Your task to perform on an android device: set an alarm Image 0: 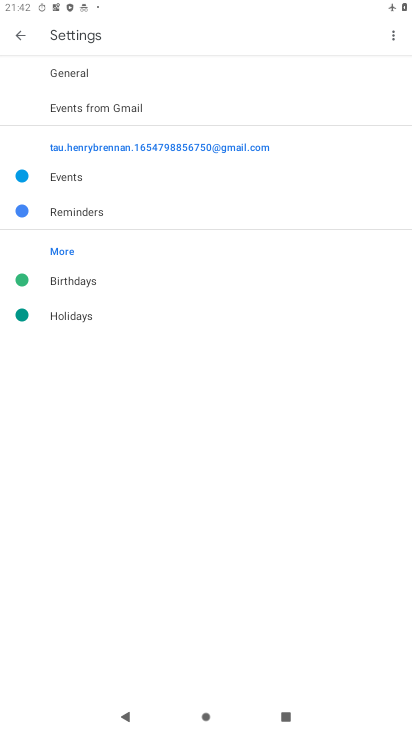
Step 0: click (15, 40)
Your task to perform on an android device: set an alarm Image 1: 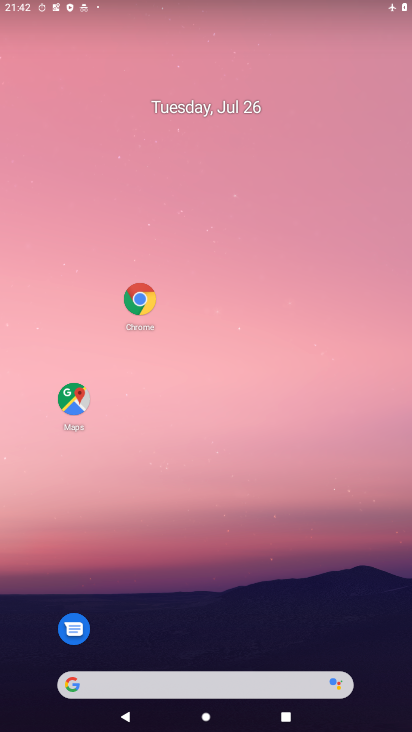
Step 1: drag from (226, 651) to (127, 91)
Your task to perform on an android device: set an alarm Image 2: 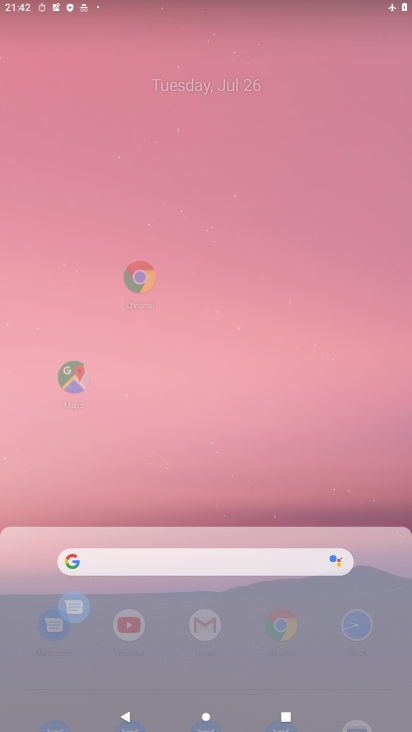
Step 2: drag from (219, 565) to (195, 97)
Your task to perform on an android device: set an alarm Image 3: 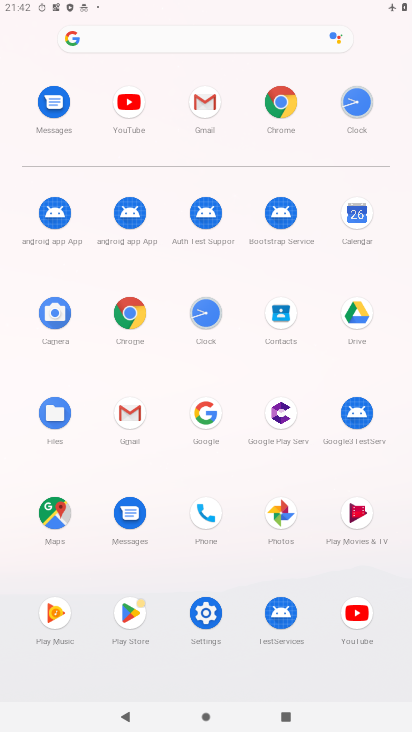
Step 3: drag from (271, 536) to (213, 181)
Your task to perform on an android device: set an alarm Image 4: 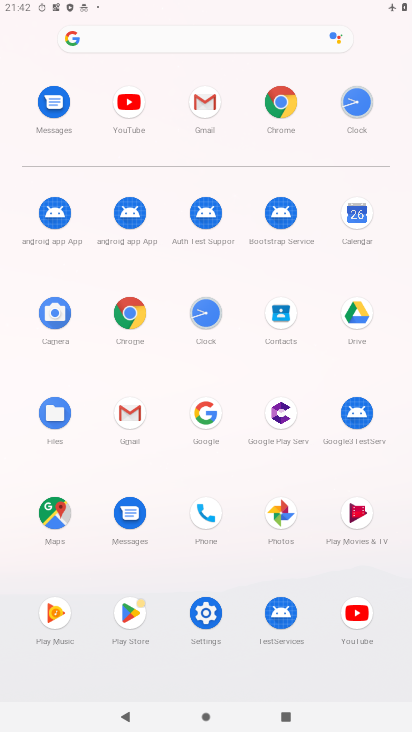
Step 4: click (207, 313)
Your task to perform on an android device: set an alarm Image 5: 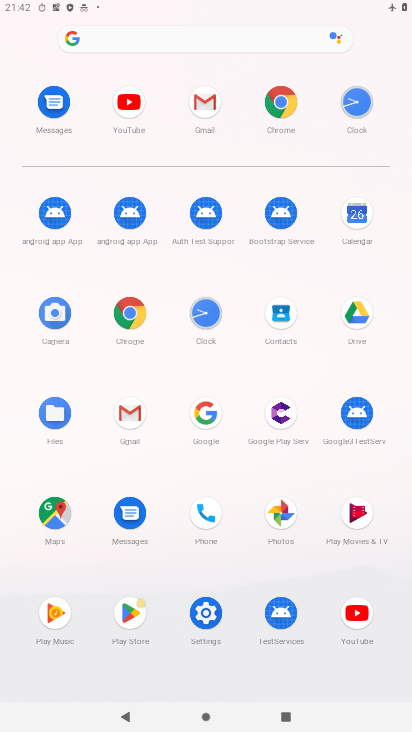
Step 5: click (208, 312)
Your task to perform on an android device: set an alarm Image 6: 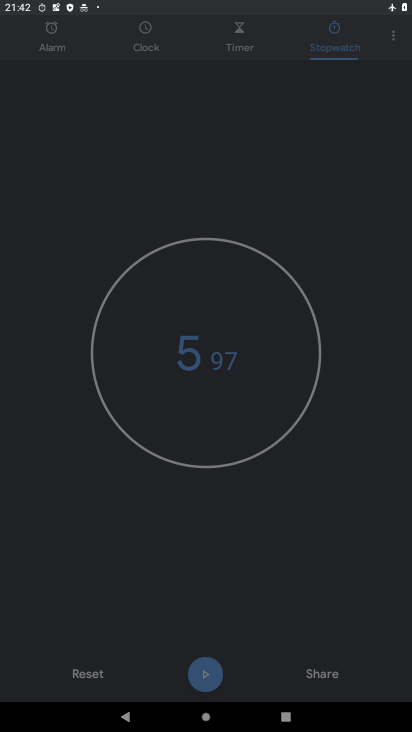
Step 6: click (208, 317)
Your task to perform on an android device: set an alarm Image 7: 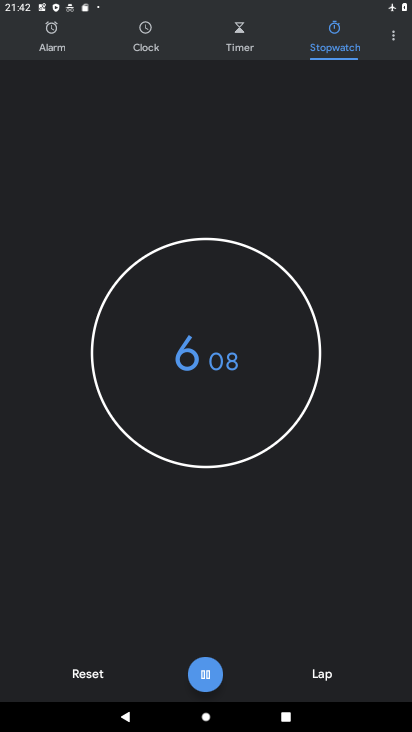
Step 7: click (208, 318)
Your task to perform on an android device: set an alarm Image 8: 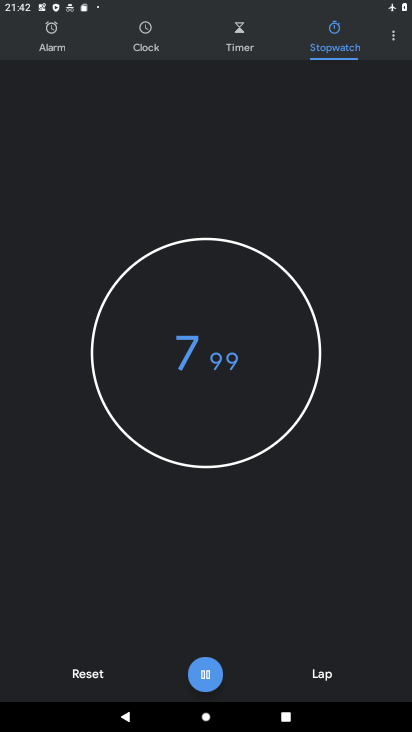
Step 8: click (48, 23)
Your task to perform on an android device: set an alarm Image 9: 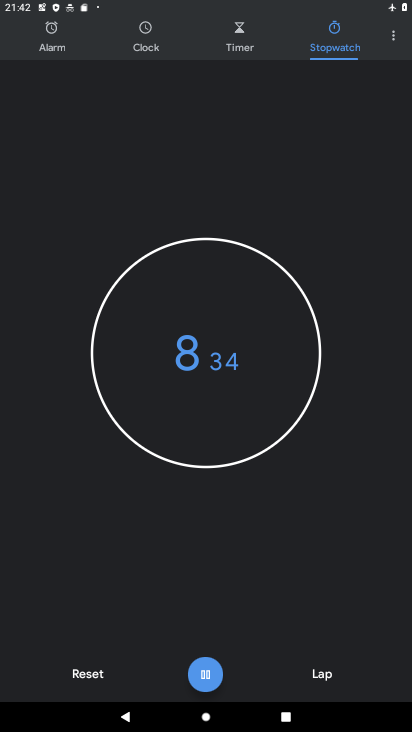
Step 9: click (46, 28)
Your task to perform on an android device: set an alarm Image 10: 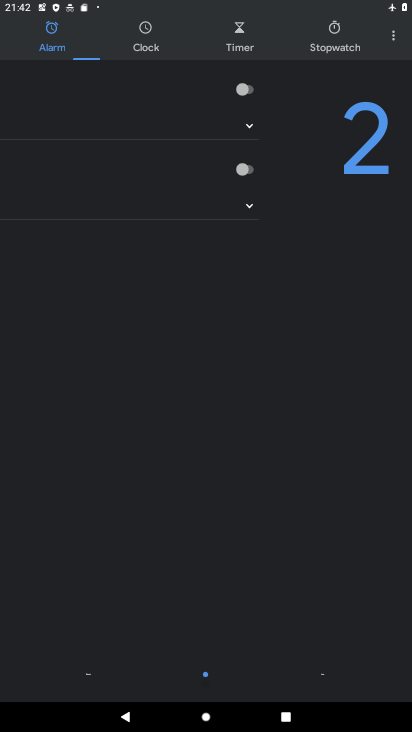
Step 10: click (46, 28)
Your task to perform on an android device: set an alarm Image 11: 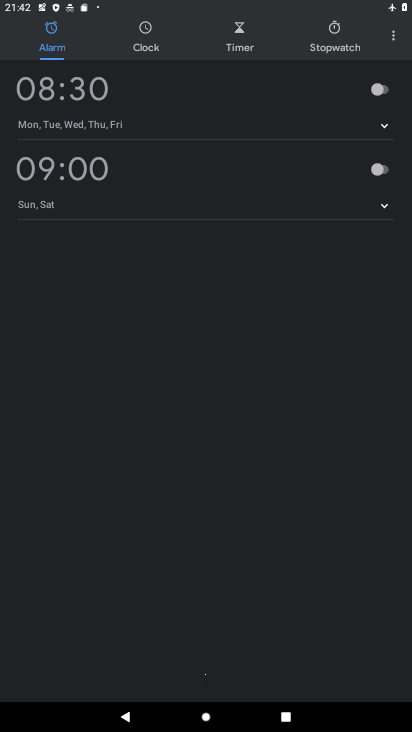
Step 11: click (46, 29)
Your task to perform on an android device: set an alarm Image 12: 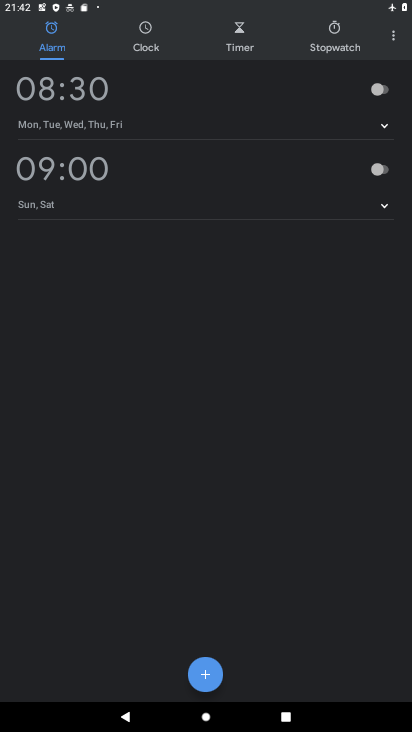
Step 12: click (371, 82)
Your task to perform on an android device: set an alarm Image 13: 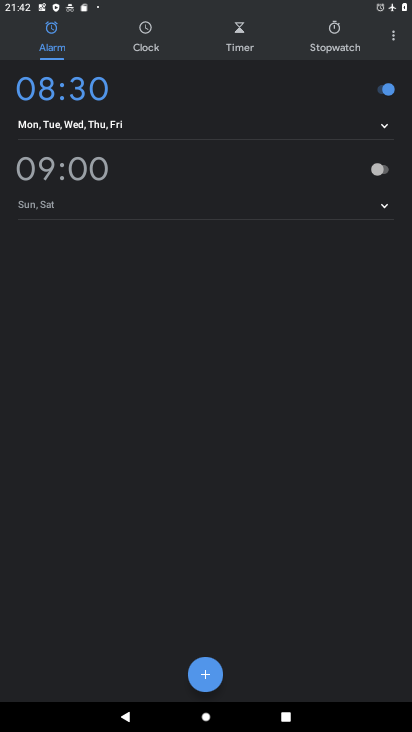
Step 13: task complete